Your task to perform on an android device: Open the web browser Image 0: 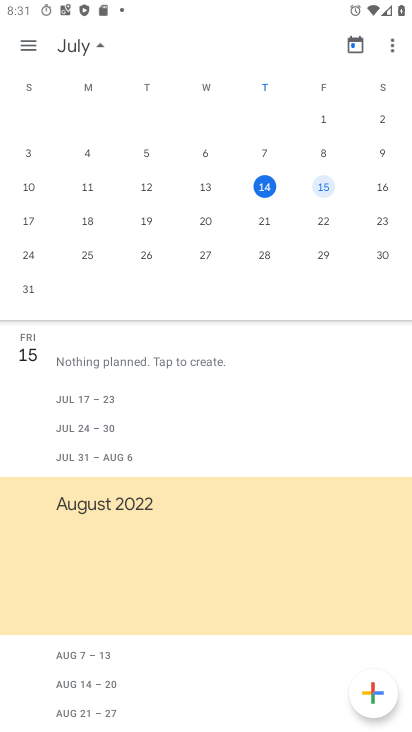
Step 0: press home button
Your task to perform on an android device: Open the web browser Image 1: 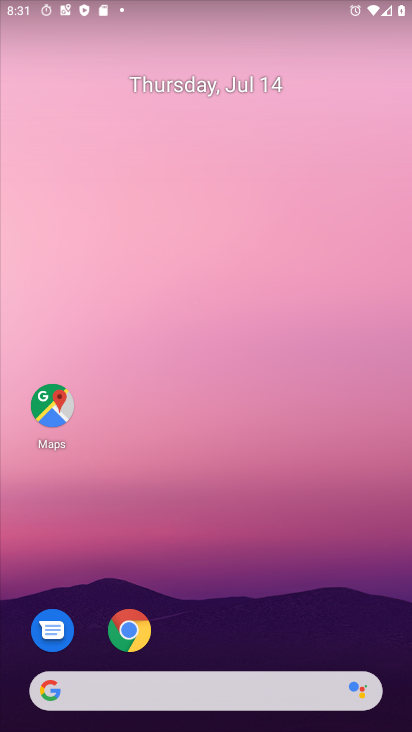
Step 1: drag from (237, 725) to (195, 302)
Your task to perform on an android device: Open the web browser Image 2: 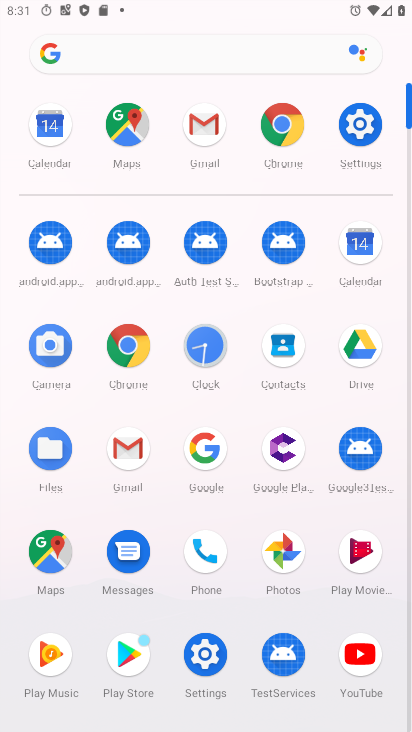
Step 2: click (132, 342)
Your task to perform on an android device: Open the web browser Image 3: 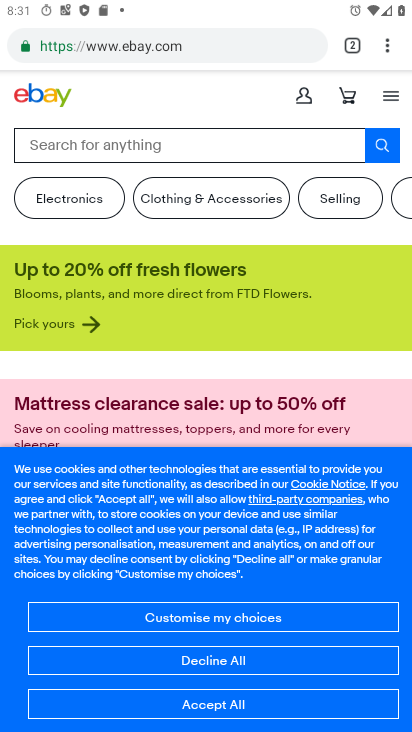
Step 3: task complete